Your task to perform on an android device: change the clock display to digital Image 0: 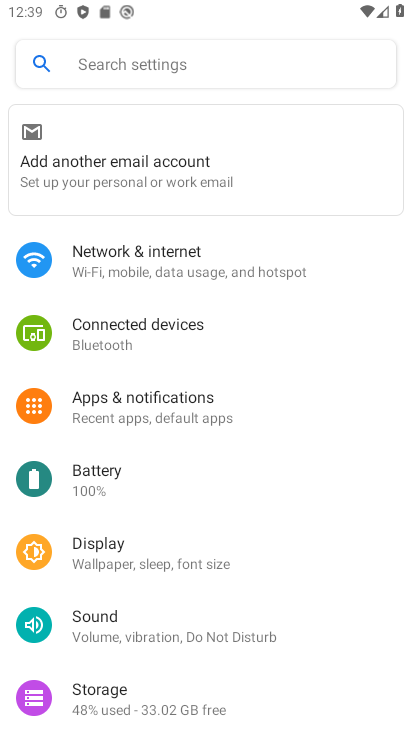
Step 0: press home button
Your task to perform on an android device: change the clock display to digital Image 1: 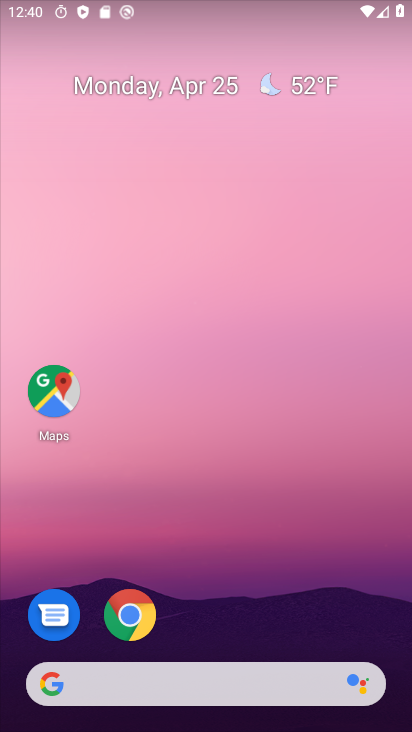
Step 1: drag from (201, 650) to (175, 87)
Your task to perform on an android device: change the clock display to digital Image 2: 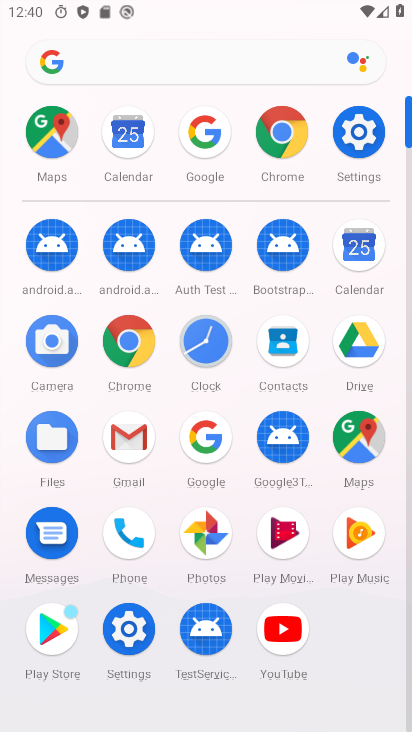
Step 2: click (208, 345)
Your task to perform on an android device: change the clock display to digital Image 3: 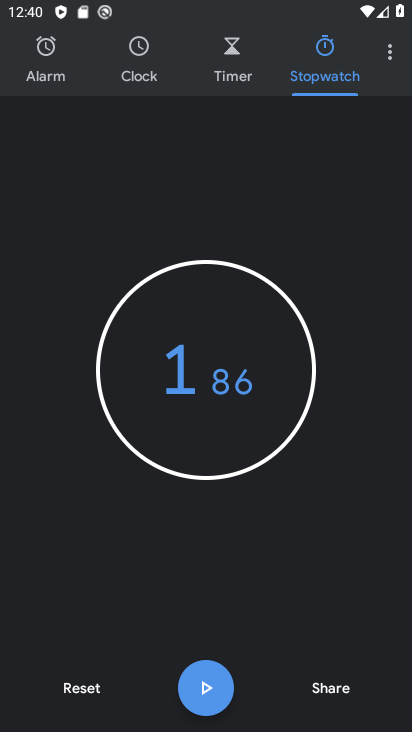
Step 3: click (394, 54)
Your task to perform on an android device: change the clock display to digital Image 4: 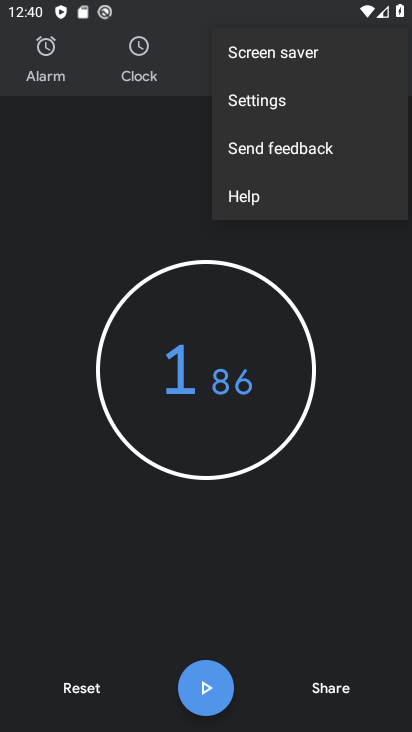
Step 4: click (270, 107)
Your task to perform on an android device: change the clock display to digital Image 5: 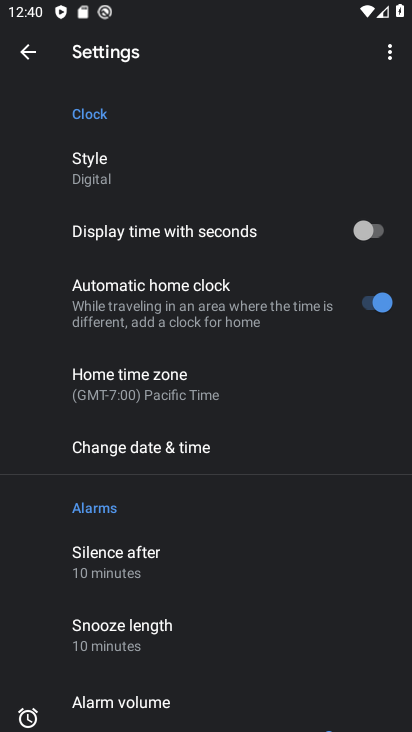
Step 5: click (68, 184)
Your task to perform on an android device: change the clock display to digital Image 6: 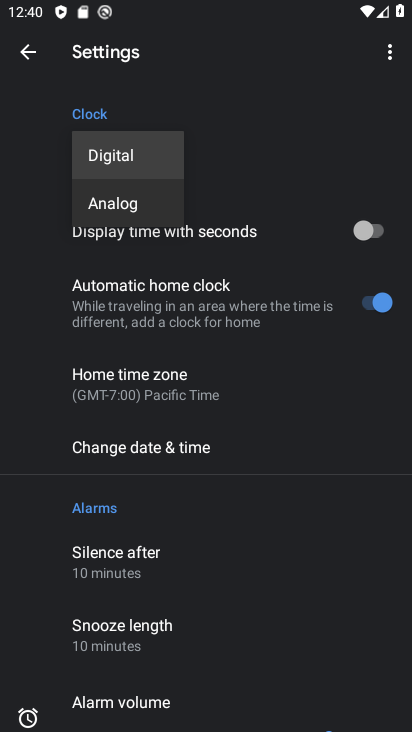
Step 6: click (109, 155)
Your task to perform on an android device: change the clock display to digital Image 7: 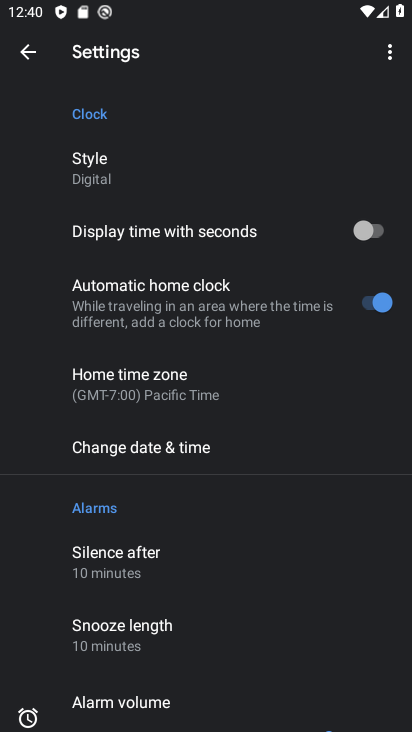
Step 7: task complete